Your task to perform on an android device: open device folders in google photos Image 0: 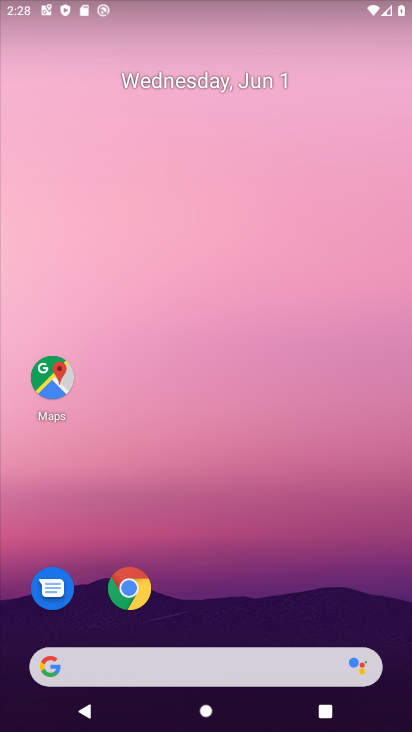
Step 0: drag from (228, 434) to (228, 142)
Your task to perform on an android device: open device folders in google photos Image 1: 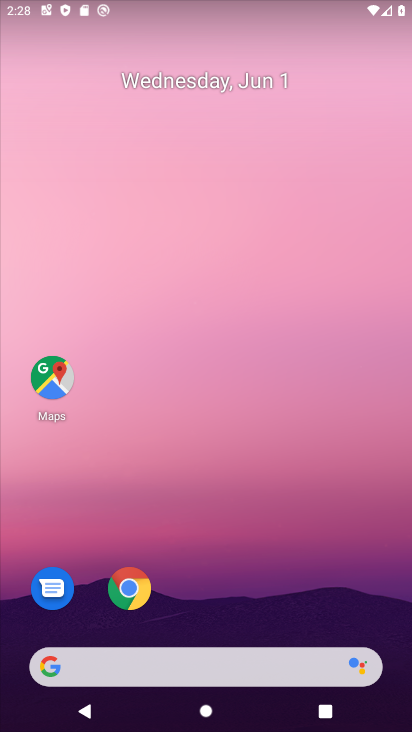
Step 1: drag from (216, 561) to (312, 132)
Your task to perform on an android device: open device folders in google photos Image 2: 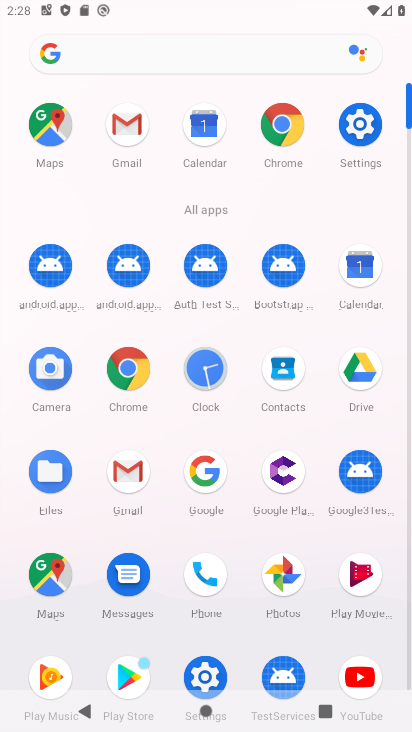
Step 2: click (271, 580)
Your task to perform on an android device: open device folders in google photos Image 3: 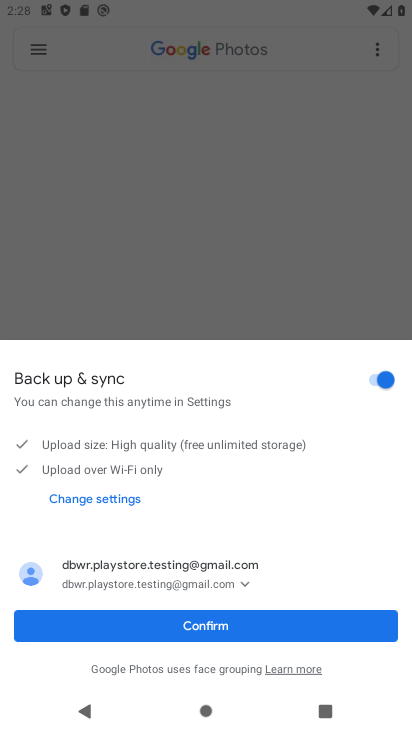
Step 3: click (204, 630)
Your task to perform on an android device: open device folders in google photos Image 4: 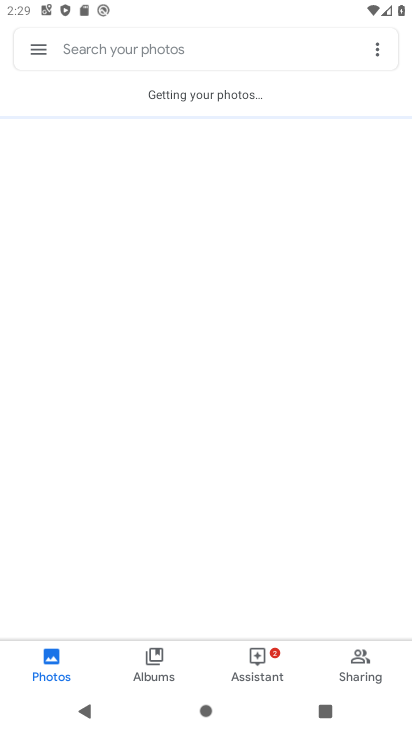
Step 4: click (42, 48)
Your task to perform on an android device: open device folders in google photos Image 5: 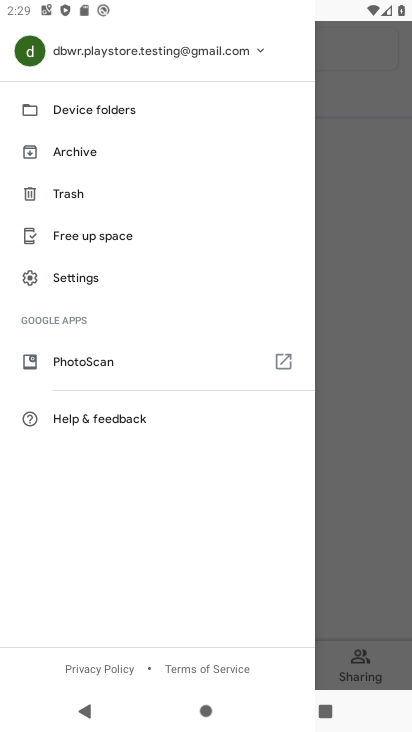
Step 5: click (90, 111)
Your task to perform on an android device: open device folders in google photos Image 6: 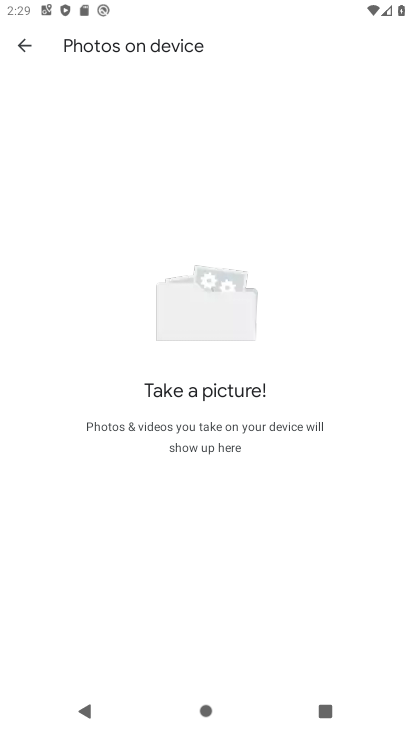
Step 6: task complete